Your task to perform on an android device: see tabs open on other devices in the chrome app Image 0: 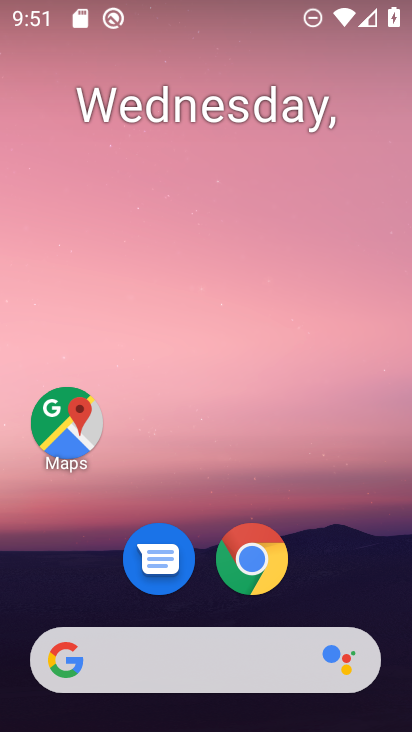
Step 0: drag from (383, 590) to (378, 187)
Your task to perform on an android device: see tabs open on other devices in the chrome app Image 1: 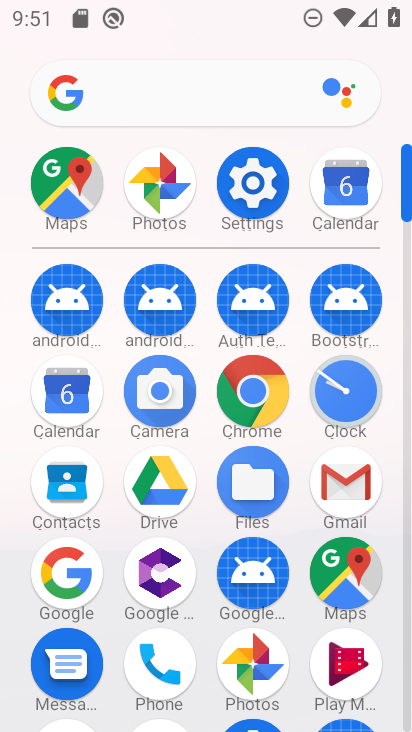
Step 1: click (274, 397)
Your task to perform on an android device: see tabs open on other devices in the chrome app Image 2: 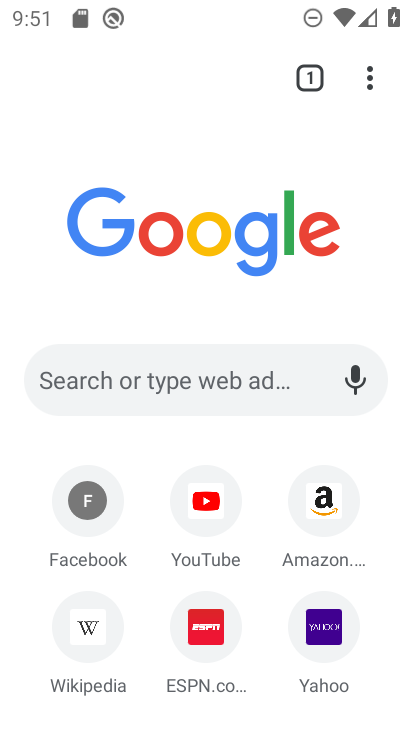
Step 2: click (365, 88)
Your task to perform on an android device: see tabs open on other devices in the chrome app Image 3: 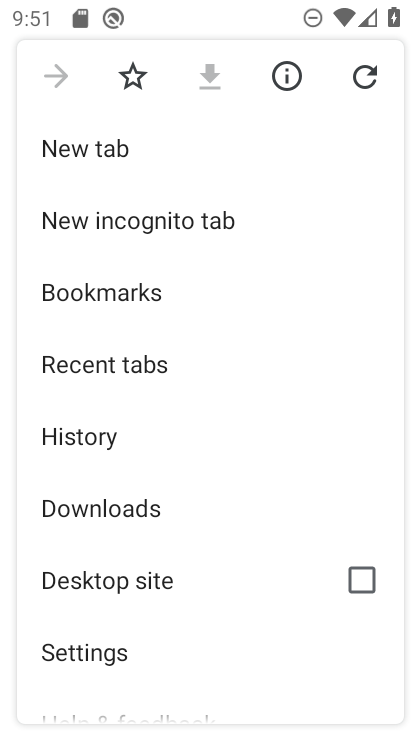
Step 3: click (147, 369)
Your task to perform on an android device: see tabs open on other devices in the chrome app Image 4: 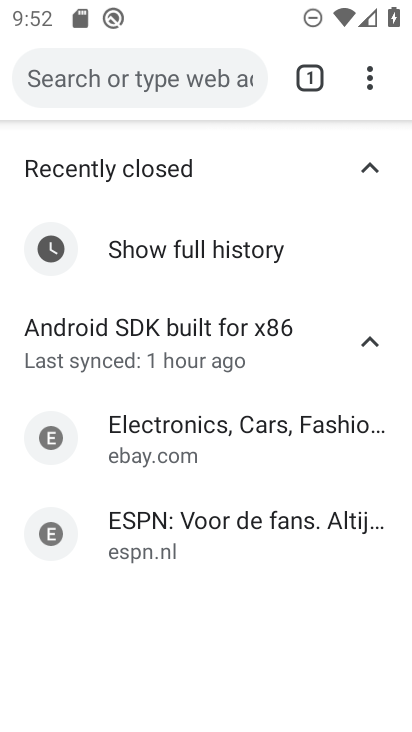
Step 4: click (310, 90)
Your task to perform on an android device: see tabs open on other devices in the chrome app Image 5: 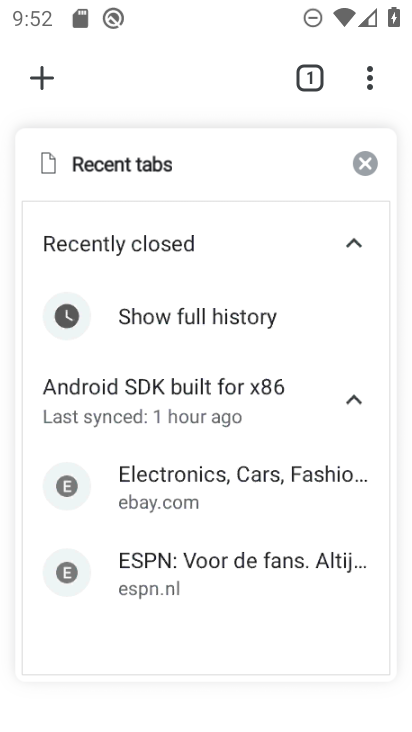
Step 5: task complete